Your task to perform on an android device: change the upload size in google photos Image 0: 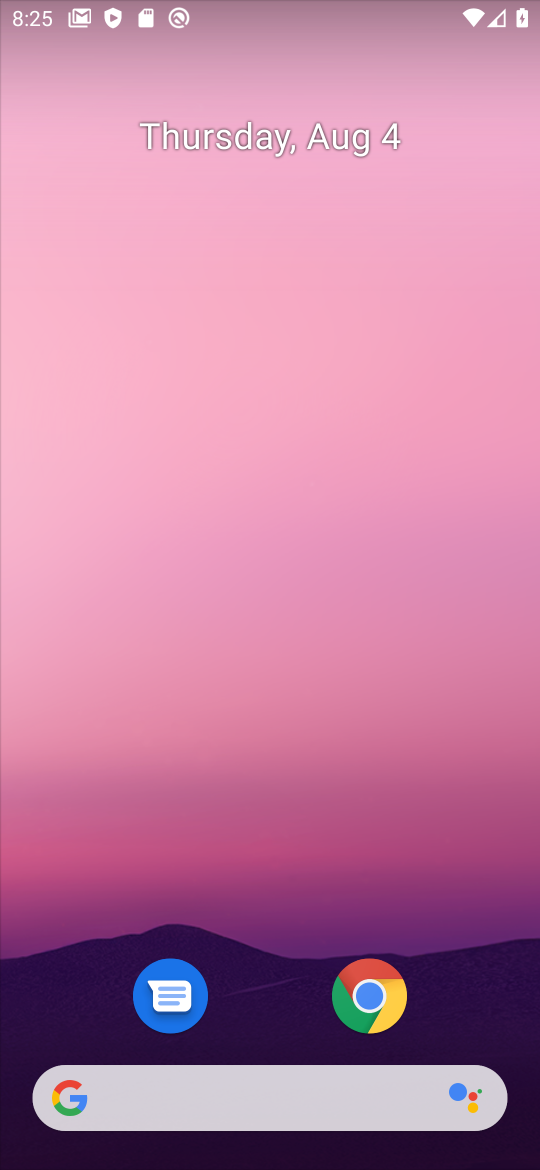
Step 0: drag from (282, 925) to (273, 10)
Your task to perform on an android device: change the upload size in google photos Image 1: 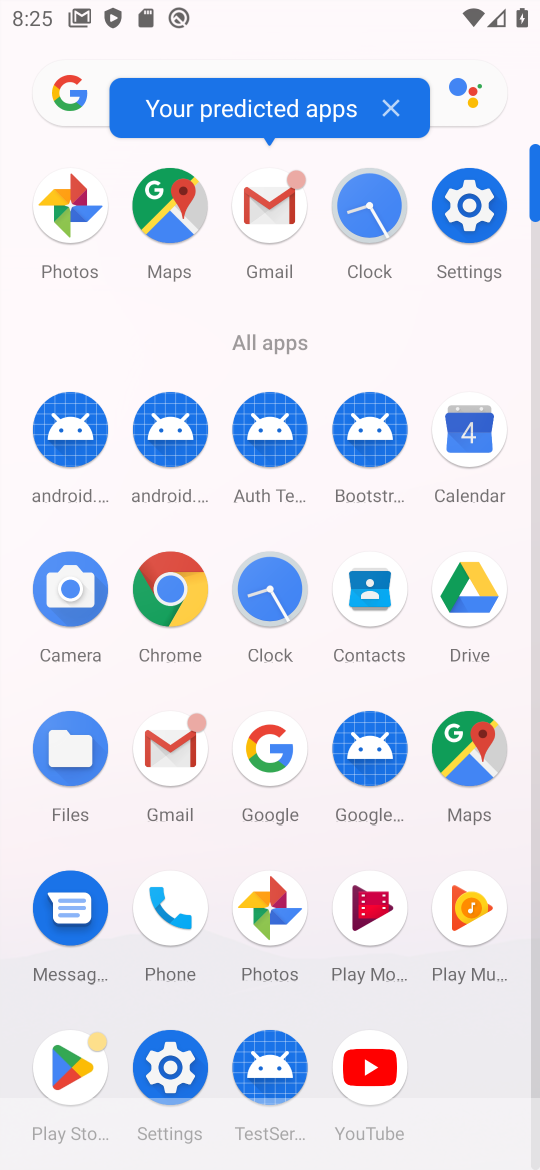
Step 1: click (266, 911)
Your task to perform on an android device: change the upload size in google photos Image 2: 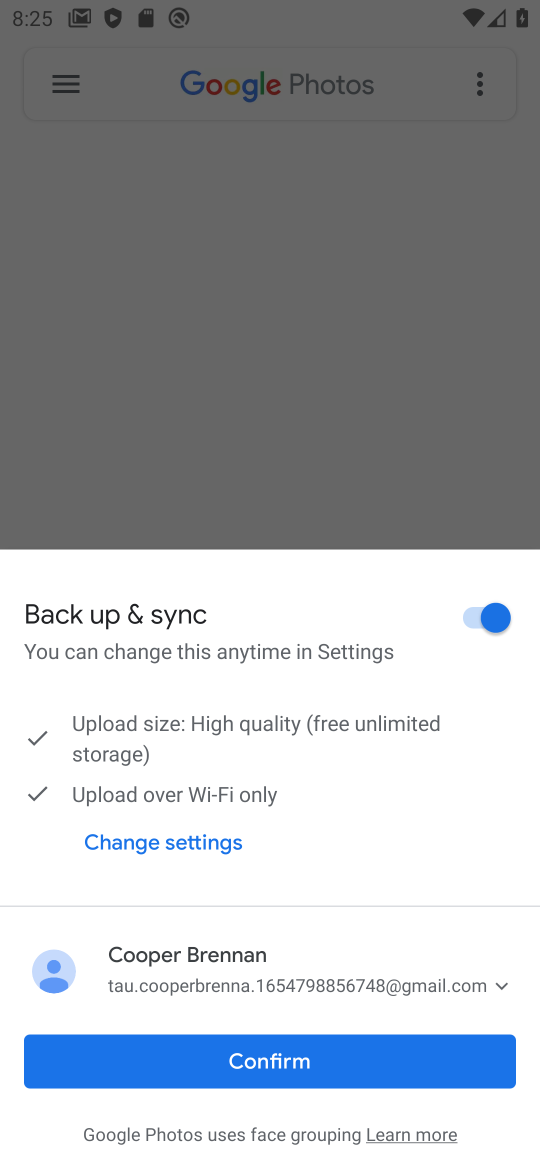
Step 2: click (230, 1069)
Your task to perform on an android device: change the upload size in google photos Image 3: 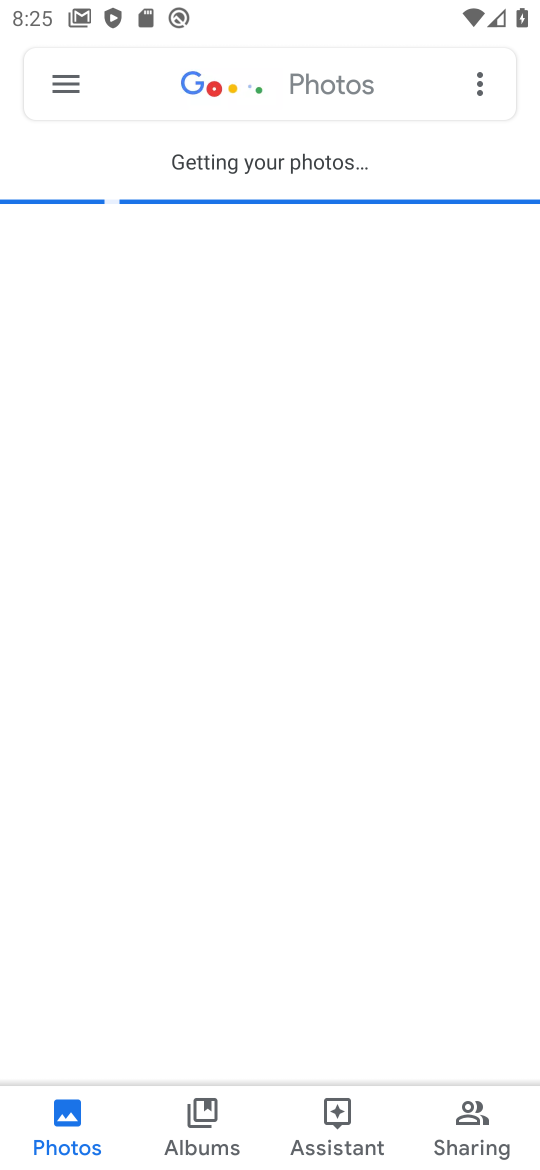
Step 3: click (55, 71)
Your task to perform on an android device: change the upload size in google photos Image 4: 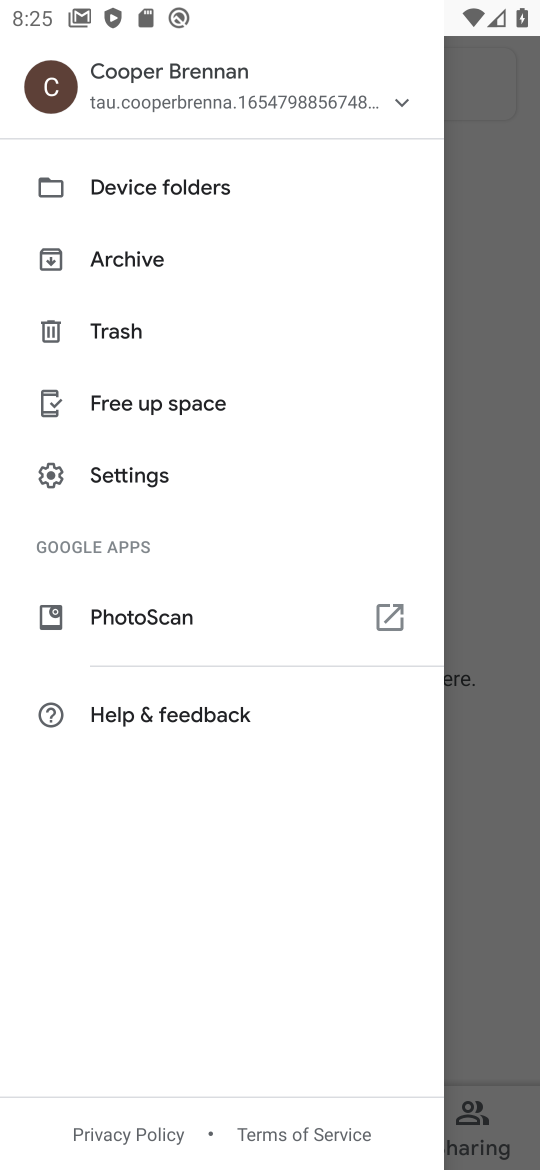
Step 4: click (123, 481)
Your task to perform on an android device: change the upload size in google photos Image 5: 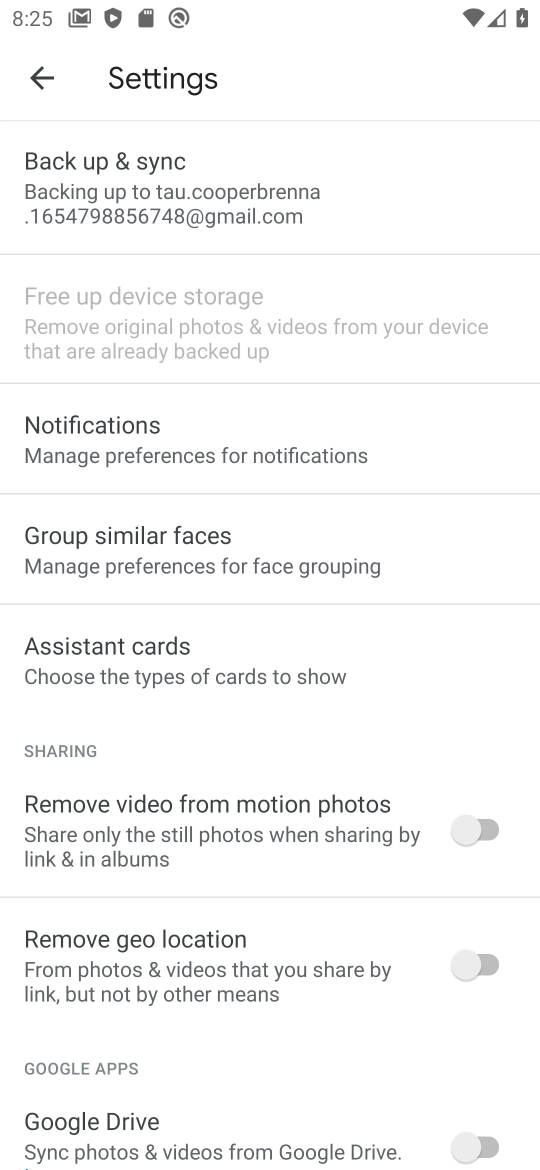
Step 5: click (156, 199)
Your task to perform on an android device: change the upload size in google photos Image 6: 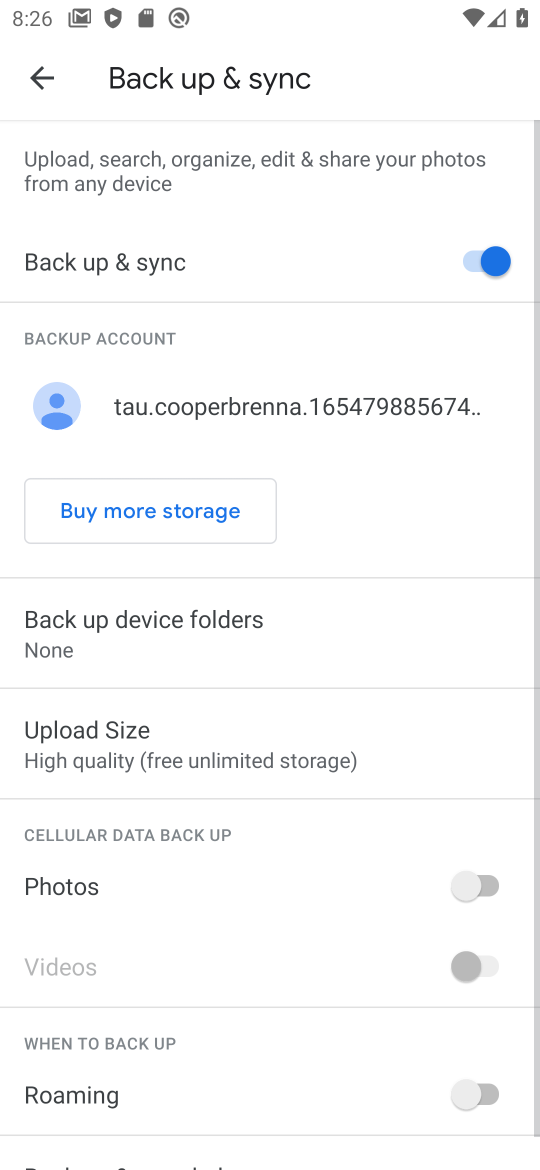
Step 6: click (120, 741)
Your task to perform on an android device: change the upload size in google photos Image 7: 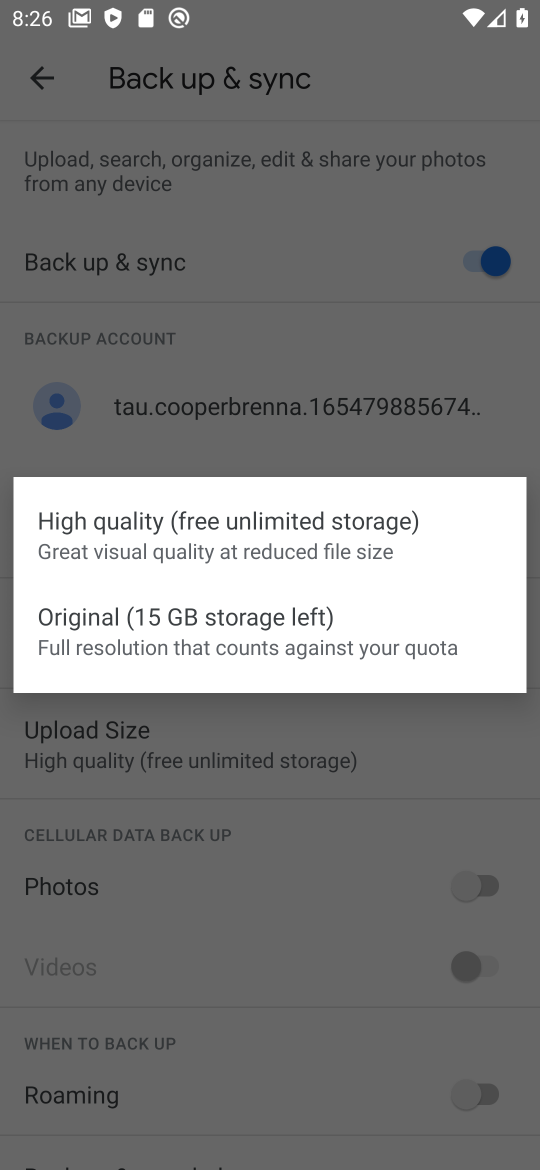
Step 7: click (149, 620)
Your task to perform on an android device: change the upload size in google photos Image 8: 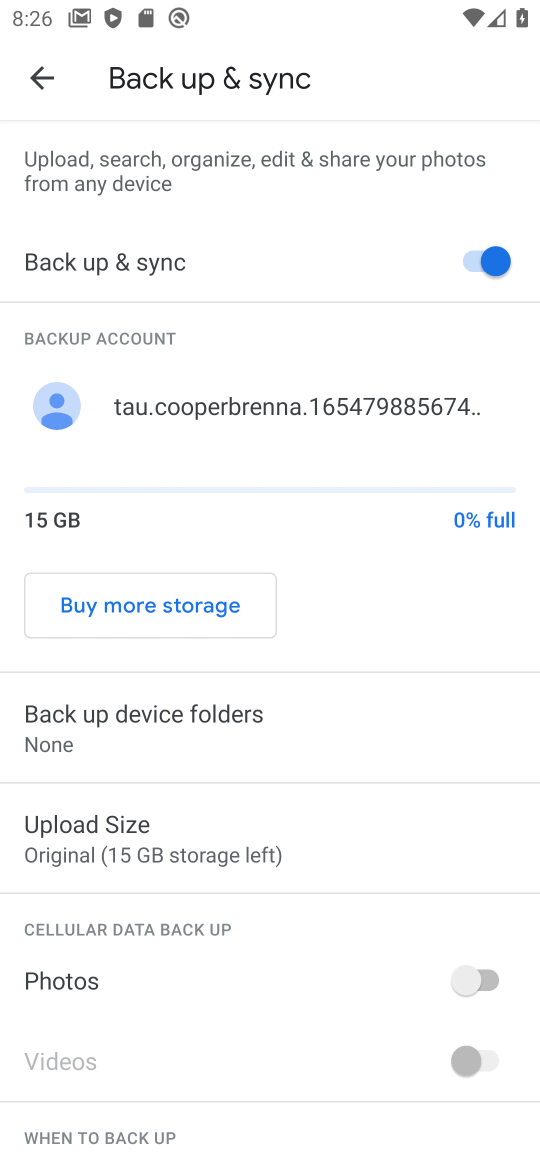
Step 8: task complete